Your task to perform on an android device: turn on translation in the chrome app Image 0: 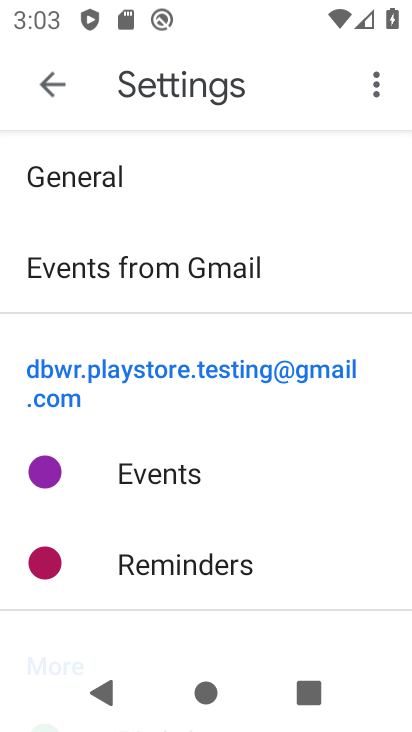
Step 0: press home button
Your task to perform on an android device: turn on translation in the chrome app Image 1: 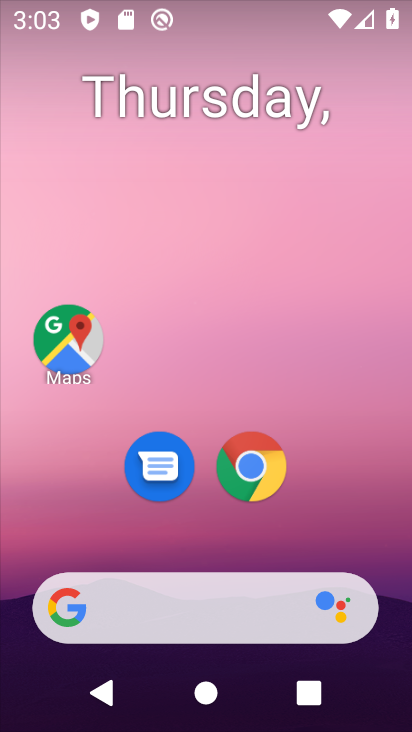
Step 1: click (252, 453)
Your task to perform on an android device: turn on translation in the chrome app Image 2: 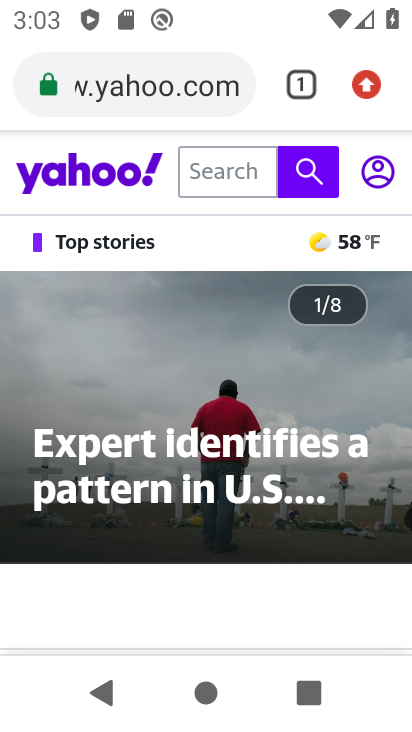
Step 2: drag from (360, 79) to (262, 530)
Your task to perform on an android device: turn on translation in the chrome app Image 3: 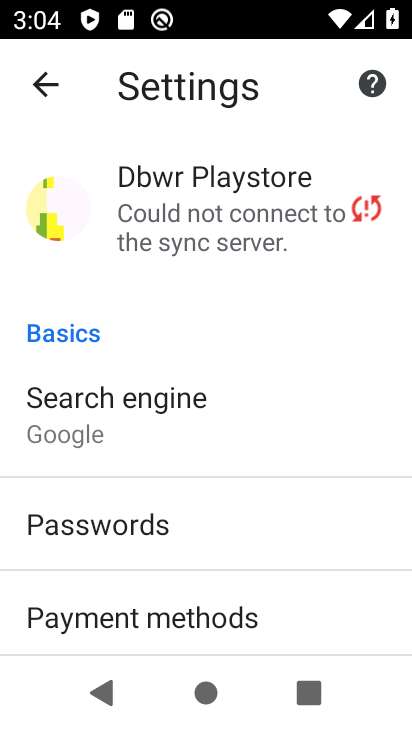
Step 3: drag from (225, 533) to (238, 12)
Your task to perform on an android device: turn on translation in the chrome app Image 4: 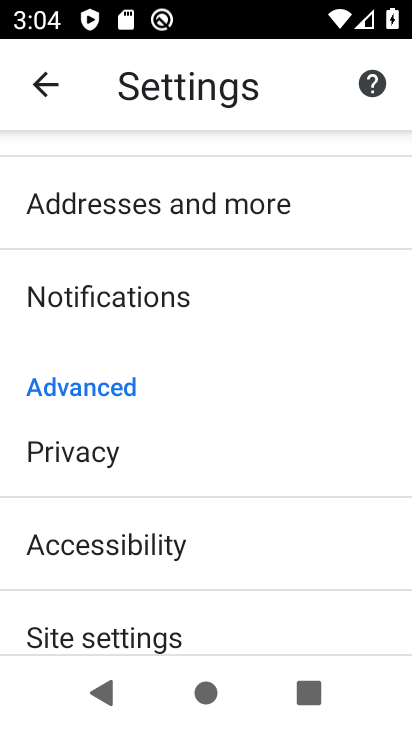
Step 4: drag from (141, 585) to (145, 131)
Your task to perform on an android device: turn on translation in the chrome app Image 5: 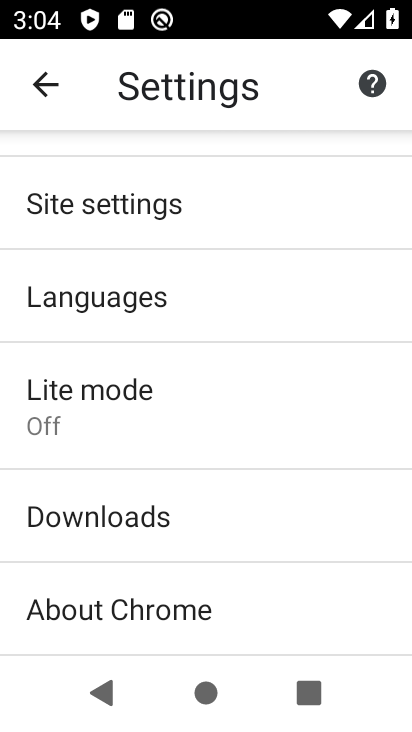
Step 5: click (133, 292)
Your task to perform on an android device: turn on translation in the chrome app Image 6: 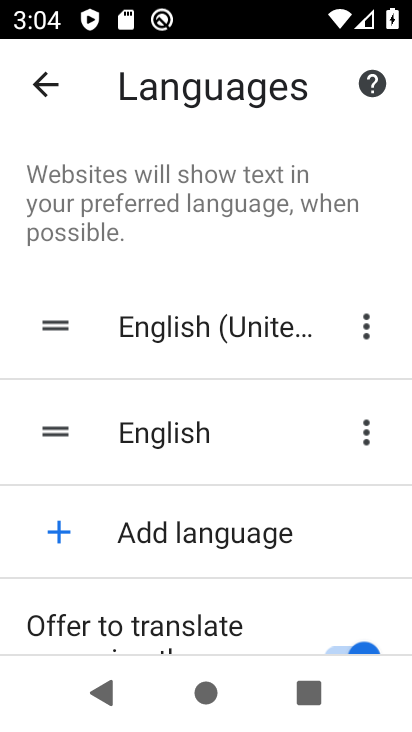
Step 6: task complete